Your task to perform on an android device: toggle airplane mode Image 0: 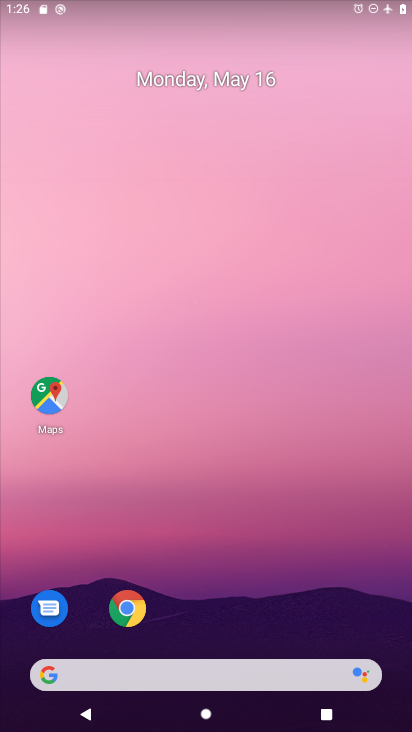
Step 0: drag from (233, 601) to (264, 140)
Your task to perform on an android device: toggle airplane mode Image 1: 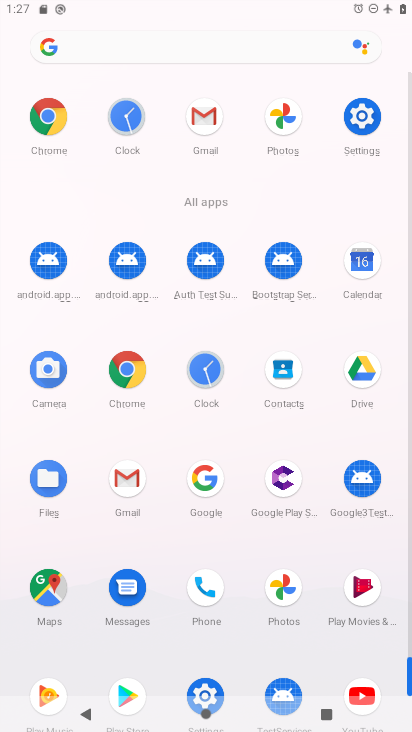
Step 1: click (371, 115)
Your task to perform on an android device: toggle airplane mode Image 2: 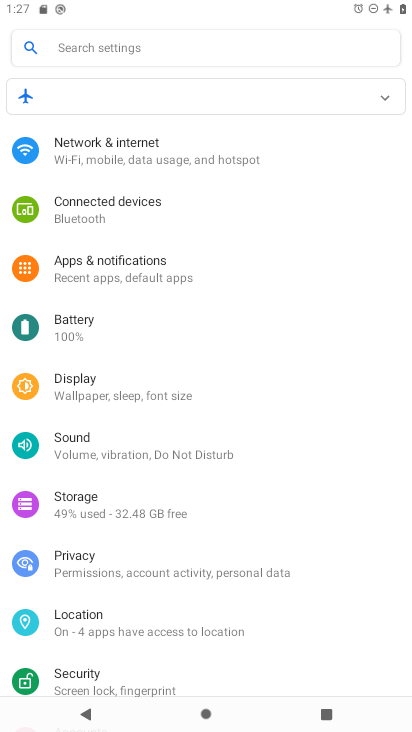
Step 2: click (160, 162)
Your task to perform on an android device: toggle airplane mode Image 3: 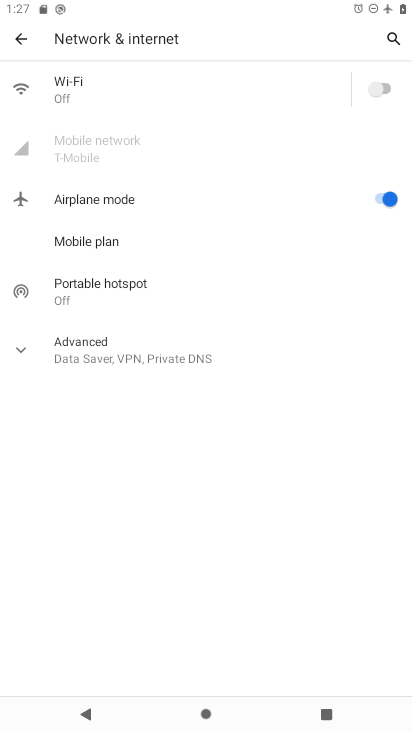
Step 3: click (393, 201)
Your task to perform on an android device: toggle airplane mode Image 4: 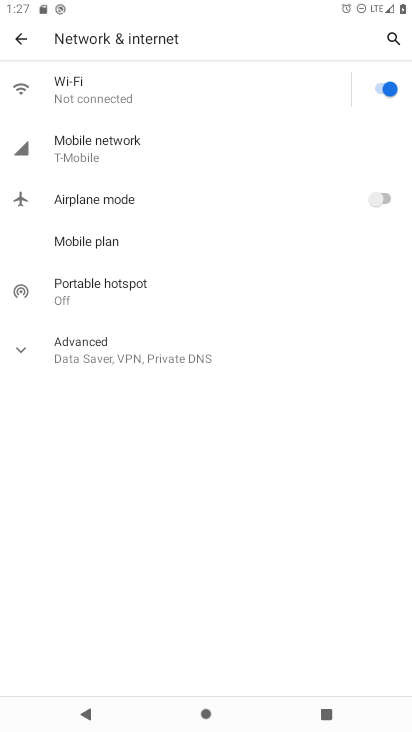
Step 4: task complete